Your task to perform on an android device: Go to display settings Image 0: 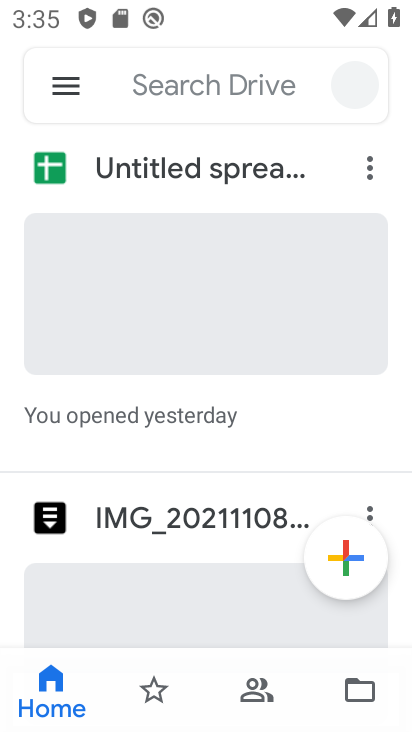
Step 0: press home button
Your task to perform on an android device: Go to display settings Image 1: 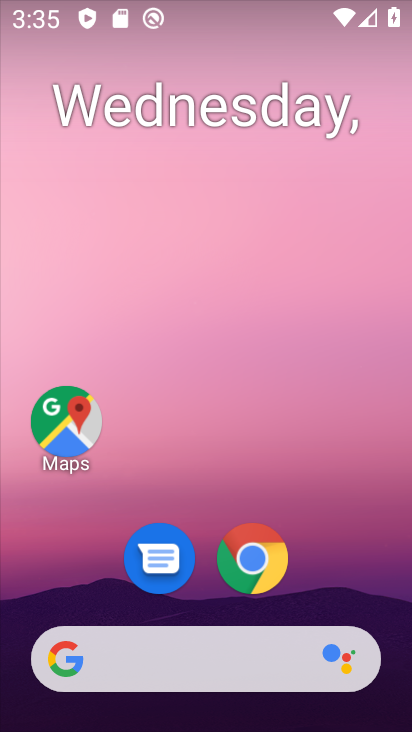
Step 1: drag from (213, 710) to (260, 3)
Your task to perform on an android device: Go to display settings Image 2: 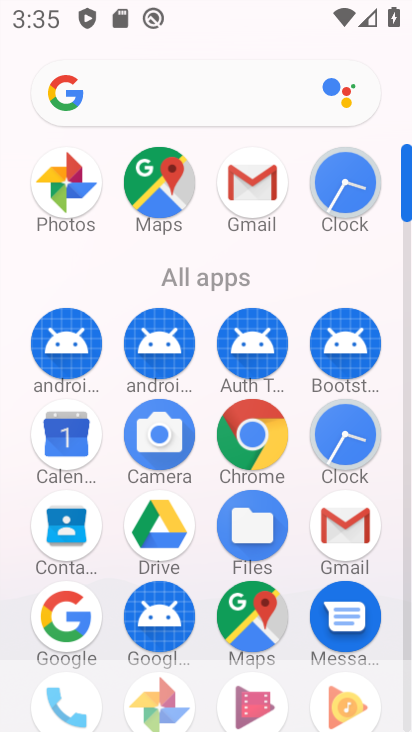
Step 2: drag from (205, 483) to (225, 311)
Your task to perform on an android device: Go to display settings Image 3: 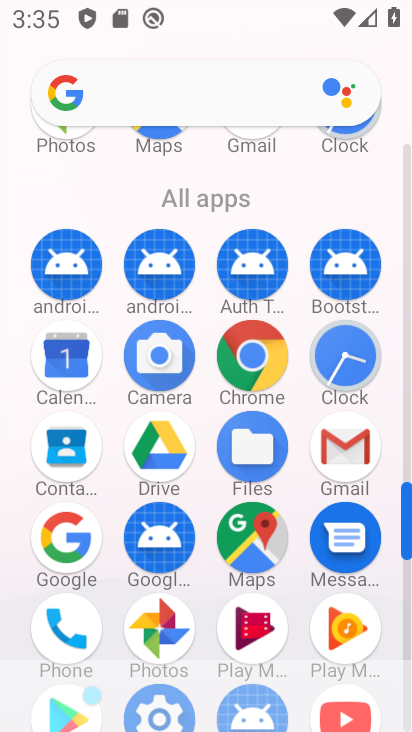
Step 3: drag from (110, 573) to (117, 493)
Your task to perform on an android device: Go to display settings Image 4: 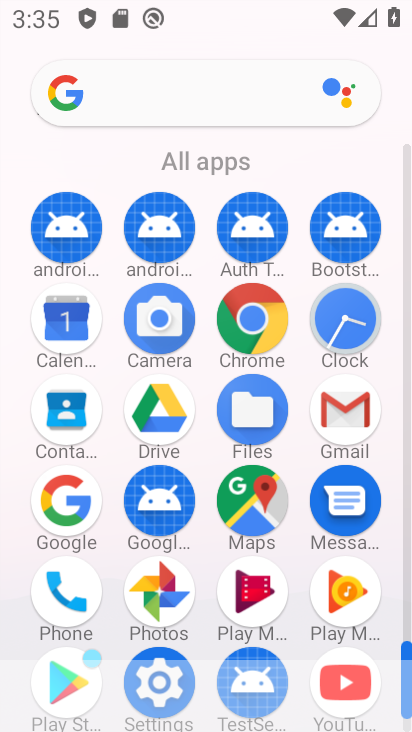
Step 4: click (156, 648)
Your task to perform on an android device: Go to display settings Image 5: 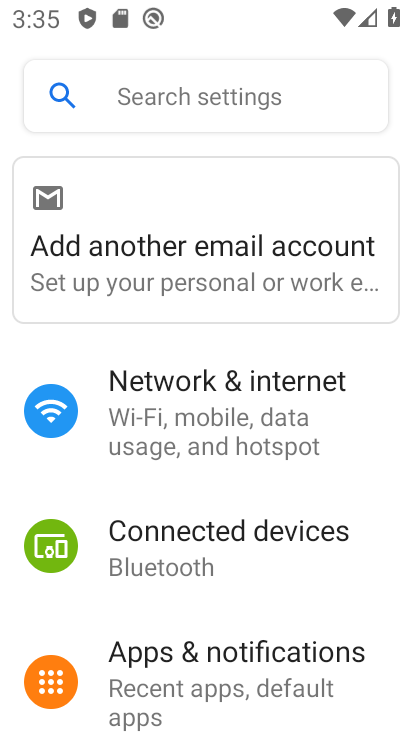
Step 5: drag from (142, 636) to (192, 139)
Your task to perform on an android device: Go to display settings Image 6: 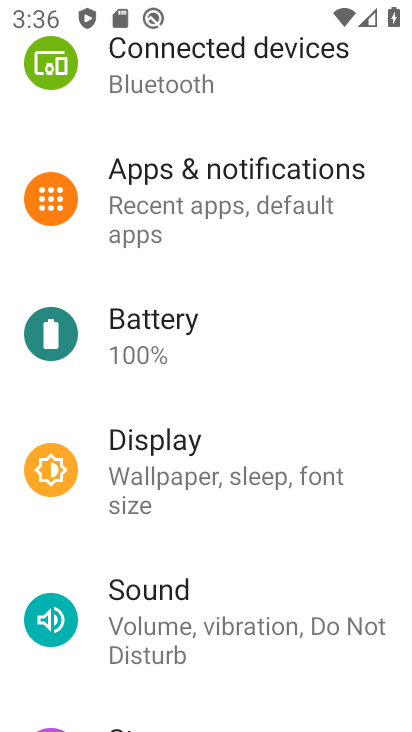
Step 6: click (138, 449)
Your task to perform on an android device: Go to display settings Image 7: 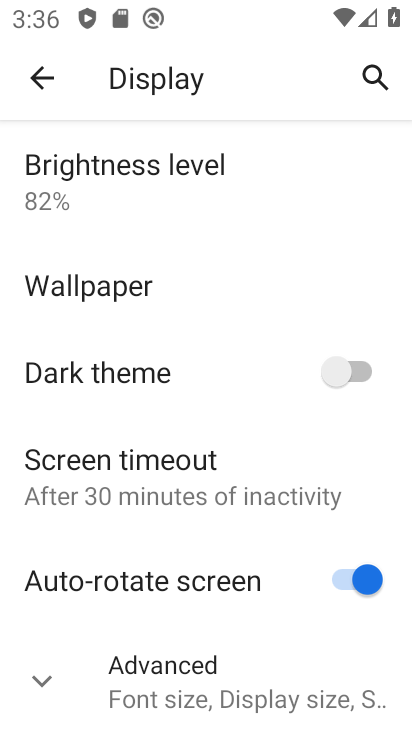
Step 7: task complete